Your task to perform on an android device: Go to internet settings Image 0: 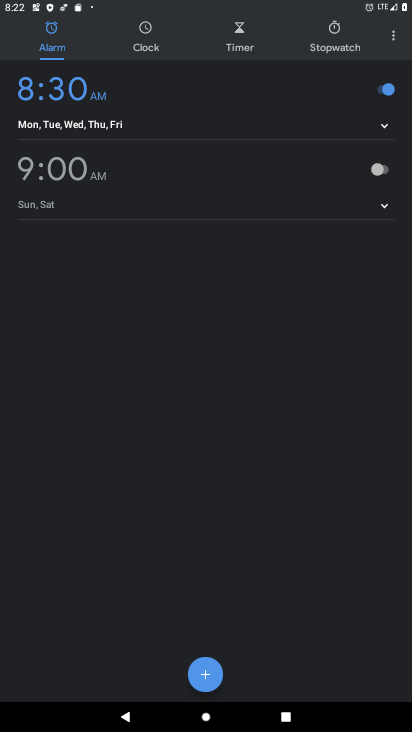
Step 0: press home button
Your task to perform on an android device: Go to internet settings Image 1: 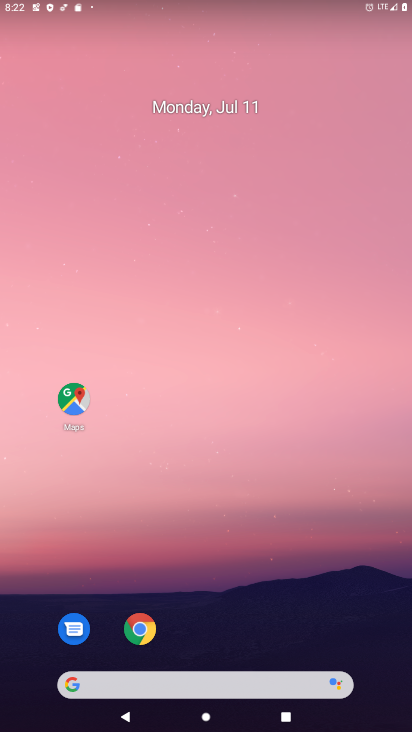
Step 1: drag from (232, 644) to (240, 137)
Your task to perform on an android device: Go to internet settings Image 2: 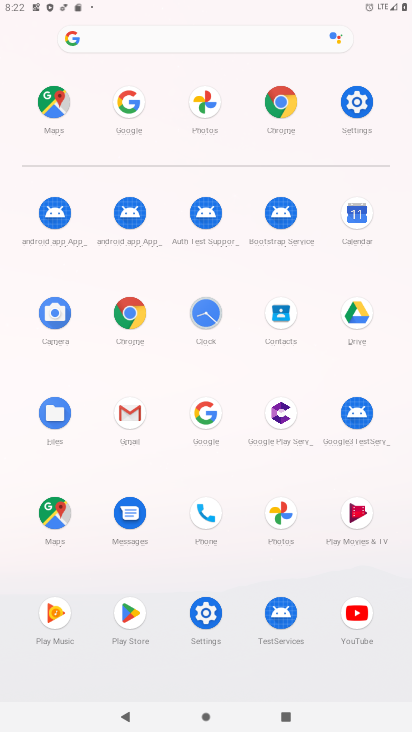
Step 2: click (360, 97)
Your task to perform on an android device: Go to internet settings Image 3: 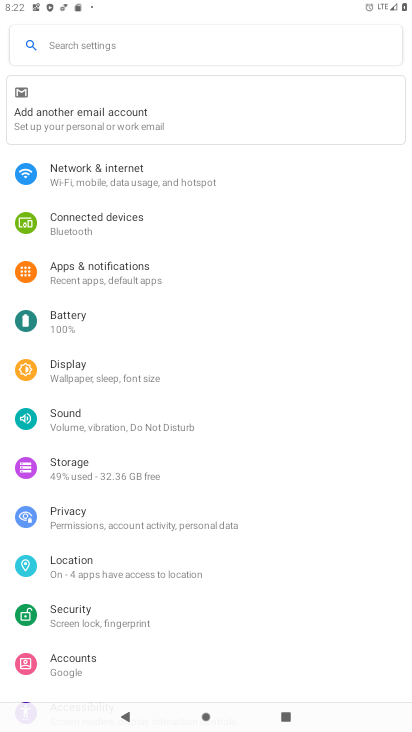
Step 3: click (132, 184)
Your task to perform on an android device: Go to internet settings Image 4: 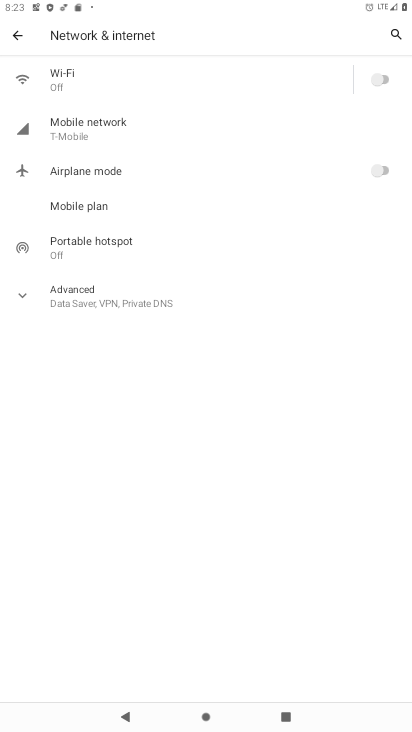
Step 4: click (98, 80)
Your task to perform on an android device: Go to internet settings Image 5: 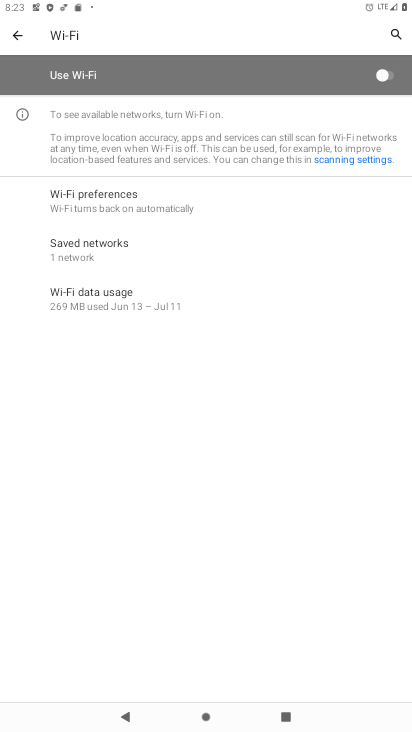
Step 5: click (380, 76)
Your task to perform on an android device: Go to internet settings Image 6: 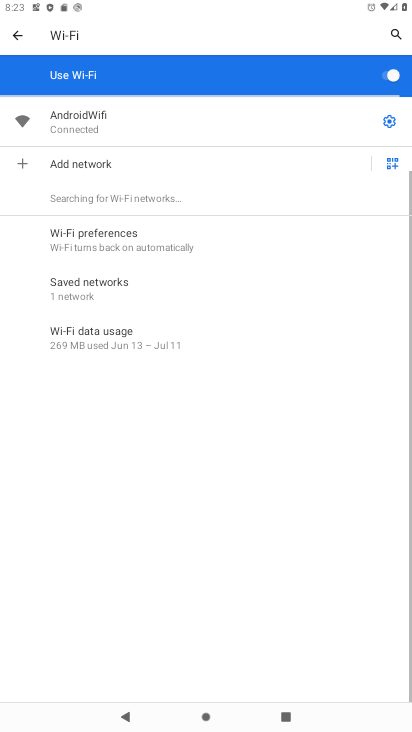
Step 6: click (382, 119)
Your task to perform on an android device: Go to internet settings Image 7: 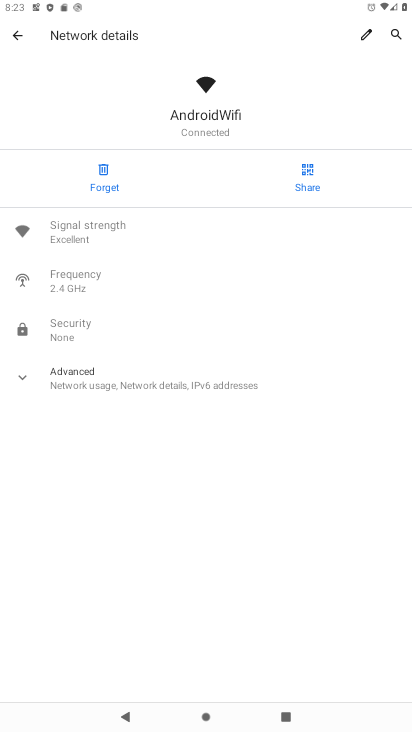
Step 7: task complete